Your task to perform on an android device: turn on the 12-hour format for clock Image 0: 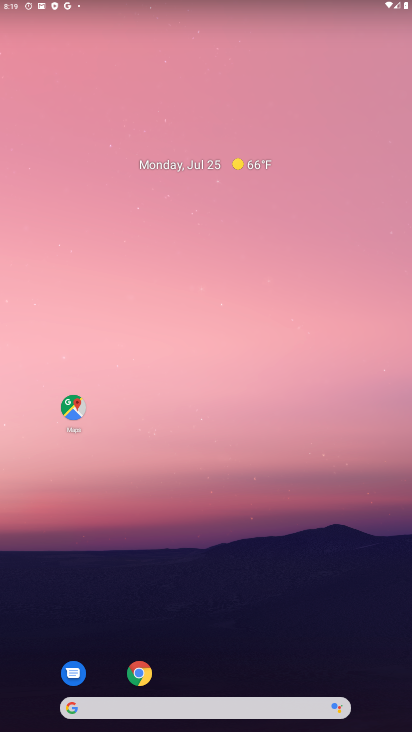
Step 0: drag from (243, 644) to (221, 152)
Your task to perform on an android device: turn on the 12-hour format for clock Image 1: 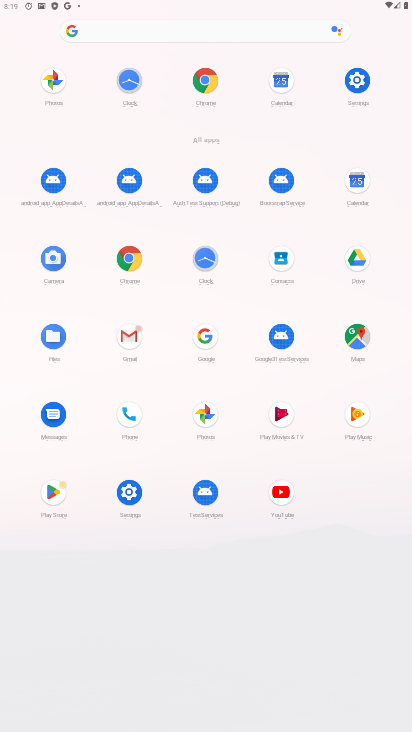
Step 1: click (204, 262)
Your task to perform on an android device: turn on the 12-hour format for clock Image 2: 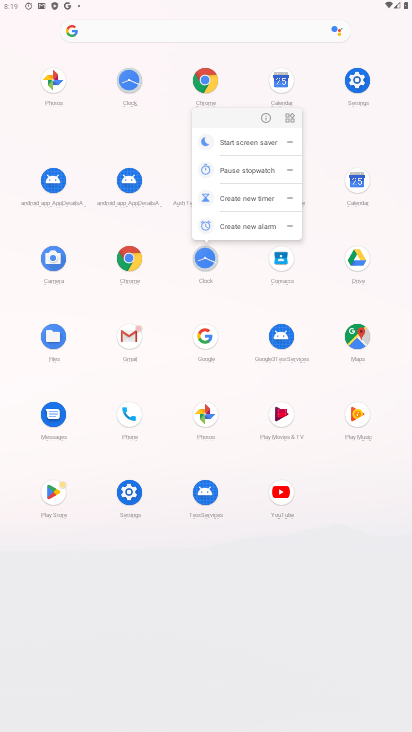
Step 2: click (273, 121)
Your task to perform on an android device: turn on the 12-hour format for clock Image 3: 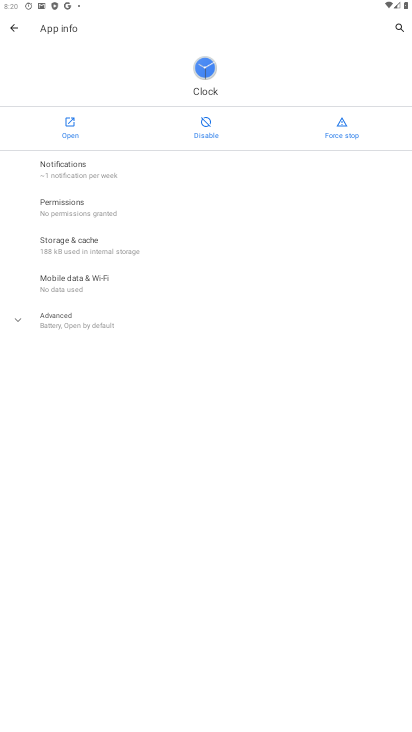
Step 3: click (68, 121)
Your task to perform on an android device: turn on the 12-hour format for clock Image 4: 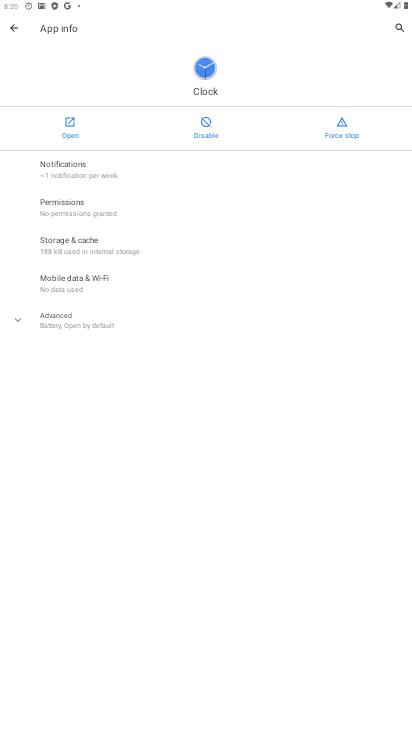
Step 4: click (68, 121)
Your task to perform on an android device: turn on the 12-hour format for clock Image 5: 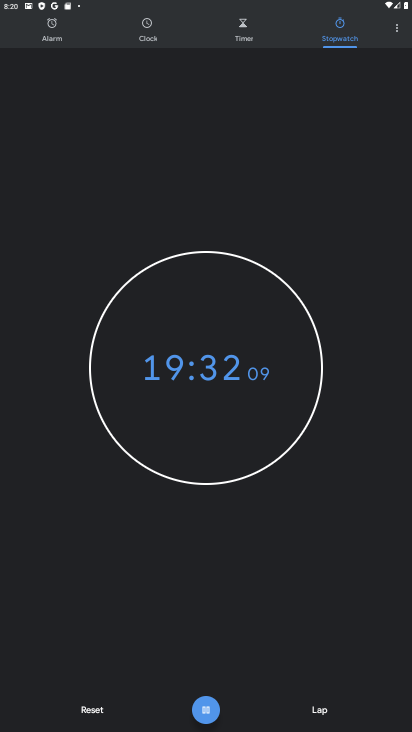
Step 5: drag from (264, 521) to (288, 287)
Your task to perform on an android device: turn on the 12-hour format for clock Image 6: 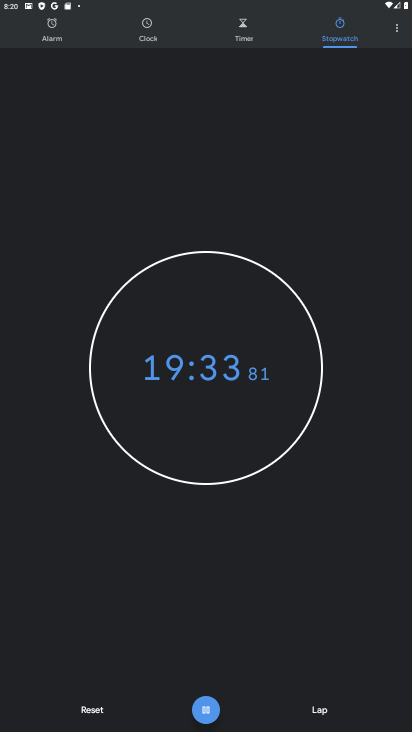
Step 6: drag from (402, 27) to (362, 52)
Your task to perform on an android device: turn on the 12-hour format for clock Image 7: 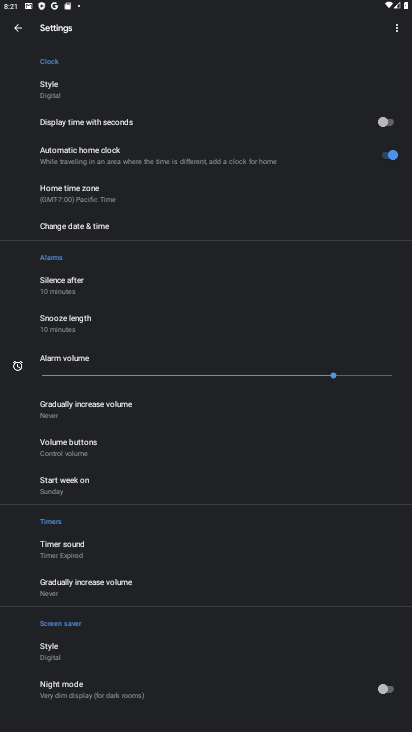
Step 7: click (93, 234)
Your task to perform on an android device: turn on the 12-hour format for clock Image 8: 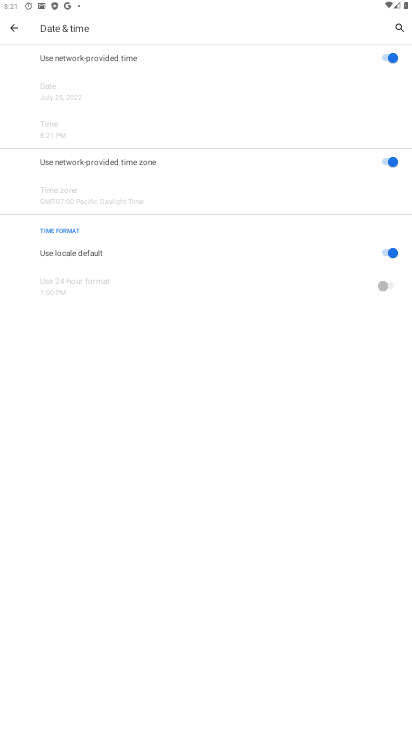
Step 8: task complete